Your task to perform on an android device: toggle sleep mode Image 0: 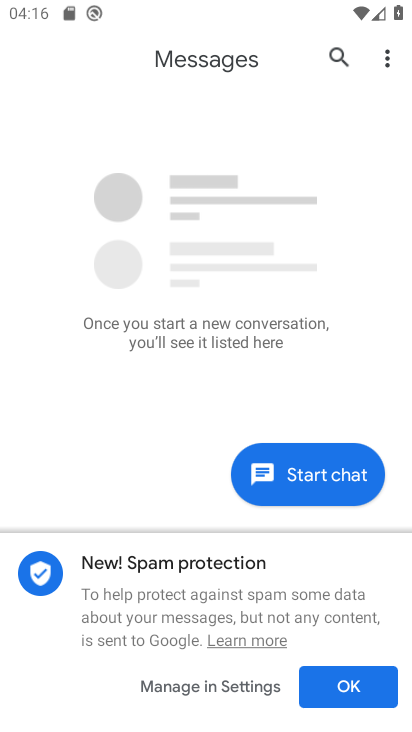
Step 0: press home button
Your task to perform on an android device: toggle sleep mode Image 1: 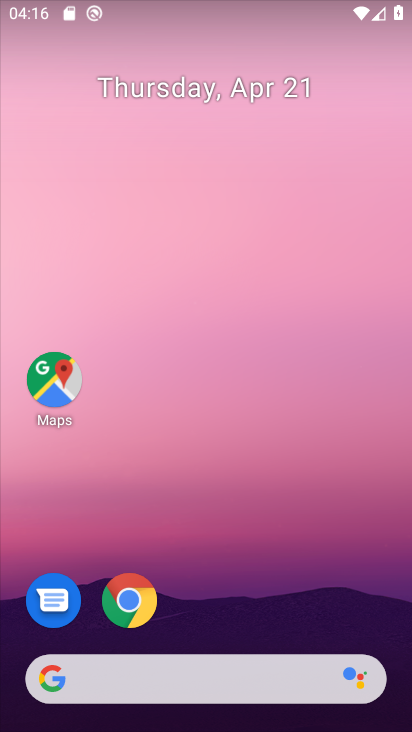
Step 1: drag from (328, 628) to (361, 11)
Your task to perform on an android device: toggle sleep mode Image 2: 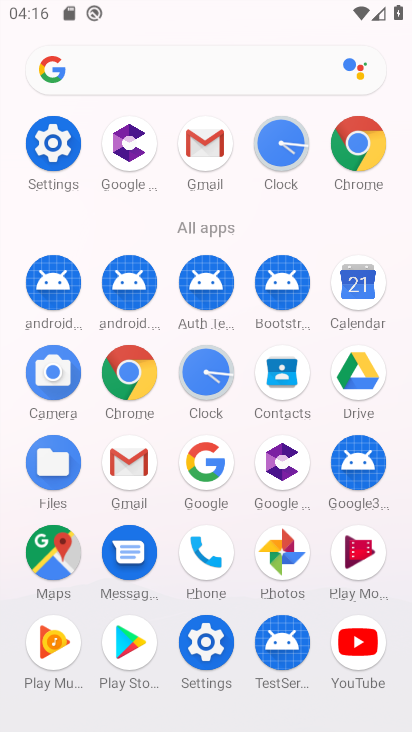
Step 2: click (48, 150)
Your task to perform on an android device: toggle sleep mode Image 3: 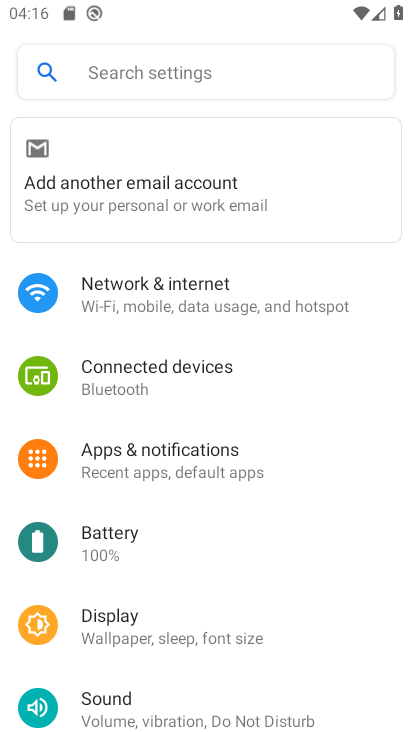
Step 3: click (135, 636)
Your task to perform on an android device: toggle sleep mode Image 4: 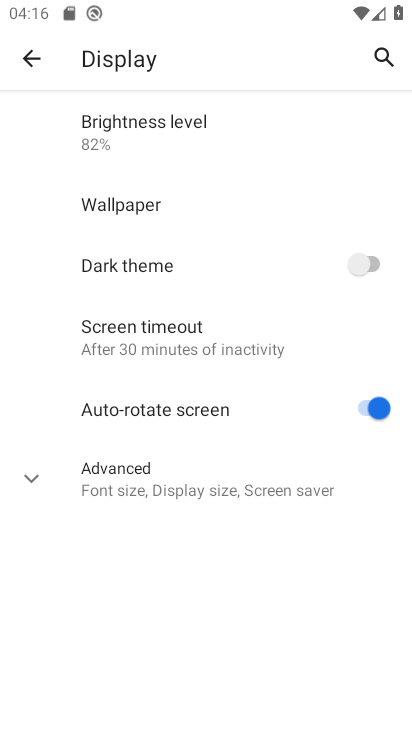
Step 4: click (32, 479)
Your task to perform on an android device: toggle sleep mode Image 5: 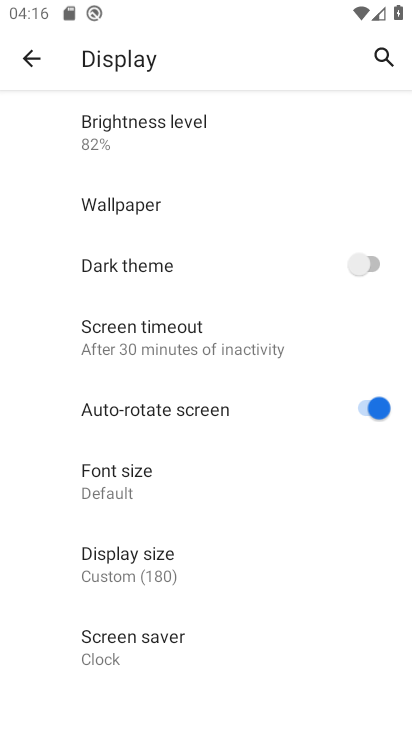
Step 5: task complete